Your task to perform on an android device: Go to network settings Image 0: 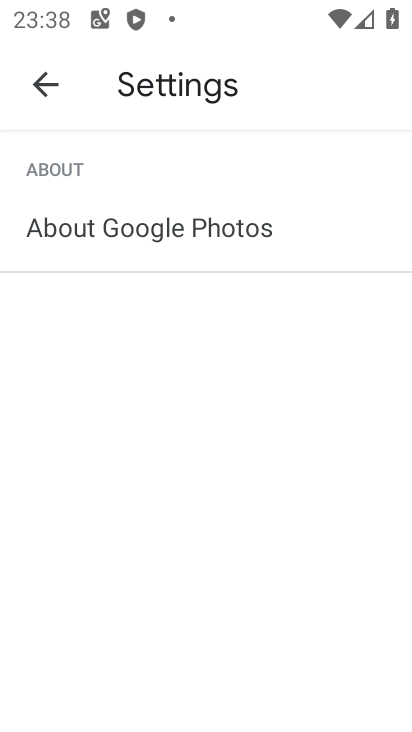
Step 0: press home button
Your task to perform on an android device: Go to network settings Image 1: 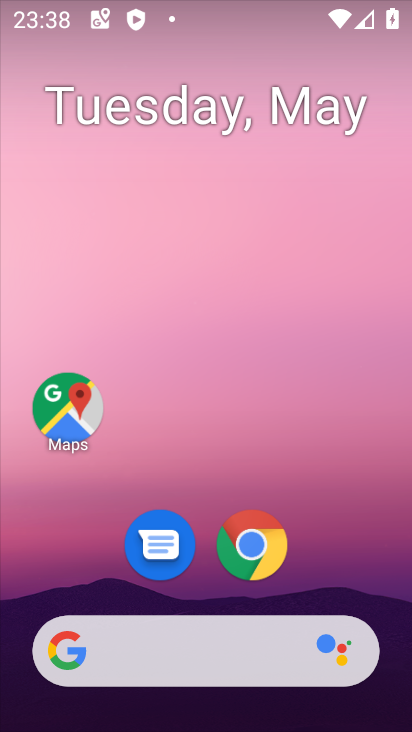
Step 1: drag from (203, 594) to (248, 219)
Your task to perform on an android device: Go to network settings Image 2: 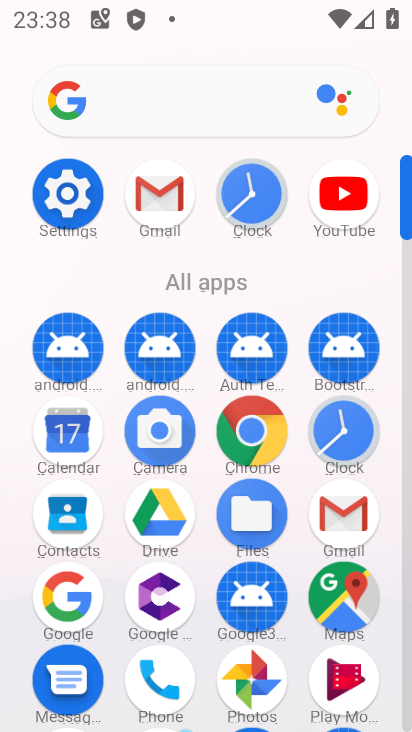
Step 2: click (75, 196)
Your task to perform on an android device: Go to network settings Image 3: 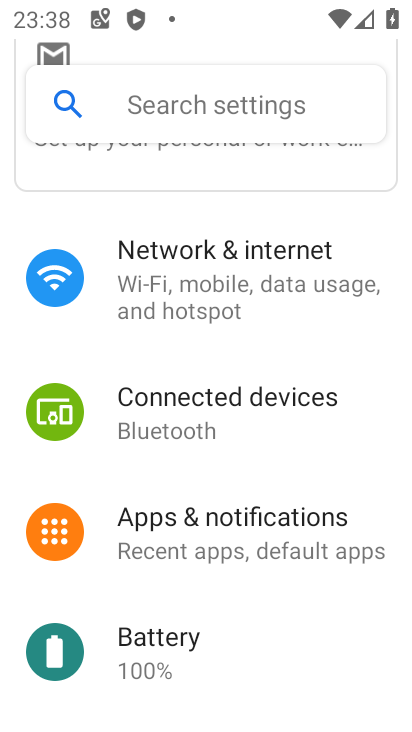
Step 3: click (186, 284)
Your task to perform on an android device: Go to network settings Image 4: 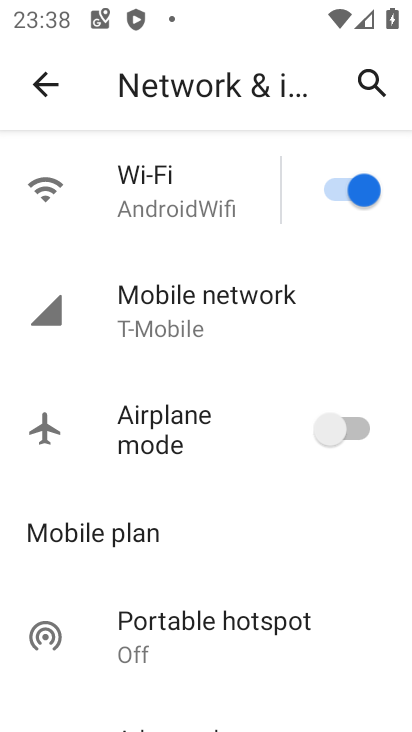
Step 4: task complete